Your task to perform on an android device: Open Maps and search for coffee Image 0: 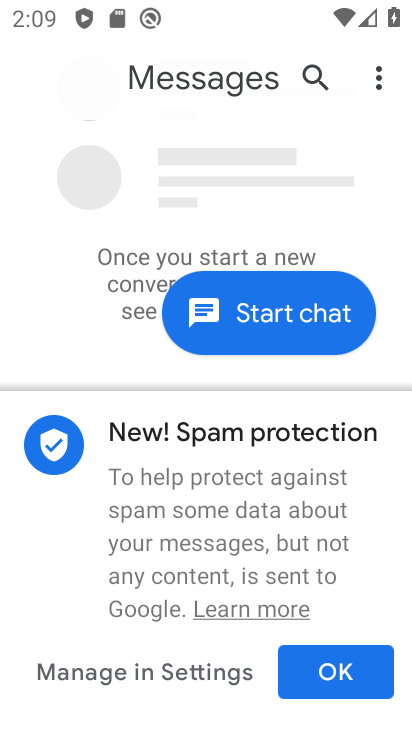
Step 0: press home button
Your task to perform on an android device: Open Maps and search for coffee Image 1: 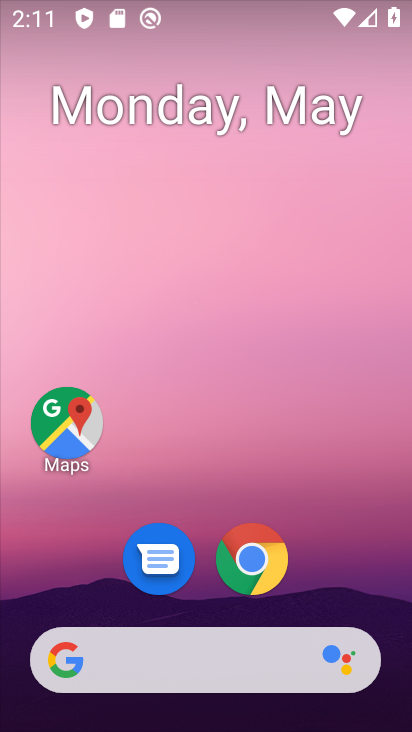
Step 1: drag from (292, 697) to (329, 255)
Your task to perform on an android device: Open Maps and search for coffee Image 2: 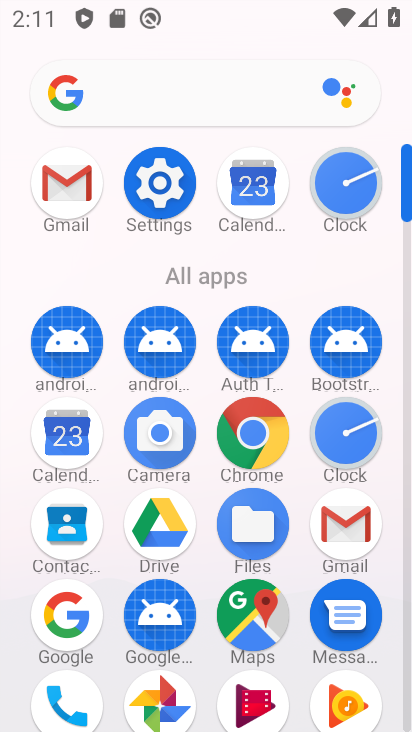
Step 2: click (260, 599)
Your task to perform on an android device: Open Maps and search for coffee Image 3: 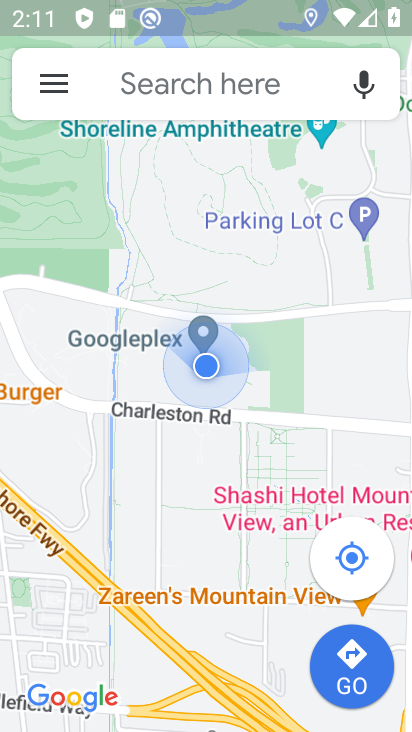
Step 3: click (145, 81)
Your task to perform on an android device: Open Maps and search for coffee Image 4: 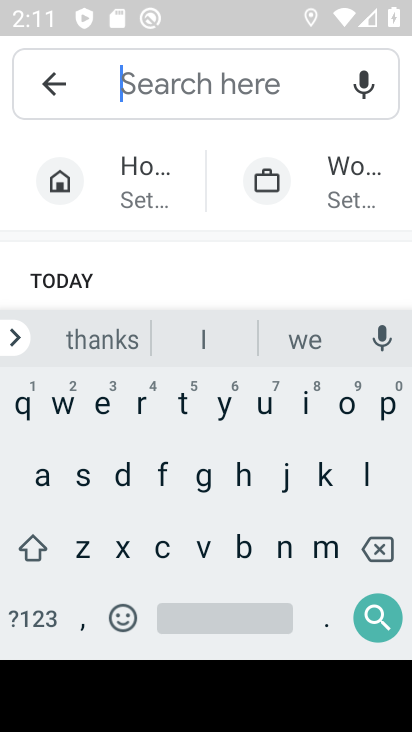
Step 4: click (162, 532)
Your task to perform on an android device: Open Maps and search for coffee Image 5: 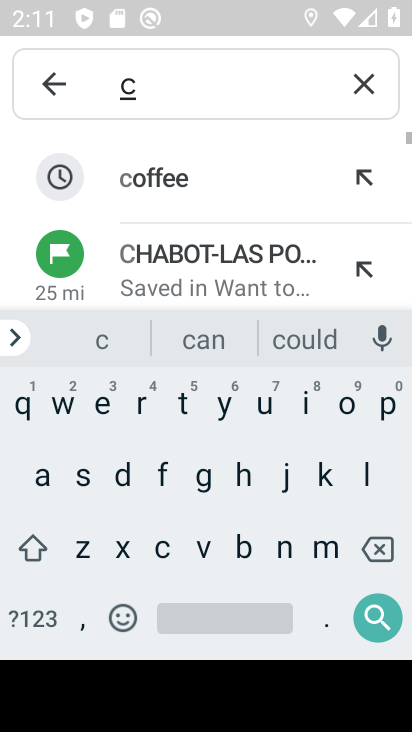
Step 5: click (171, 183)
Your task to perform on an android device: Open Maps and search for coffee Image 6: 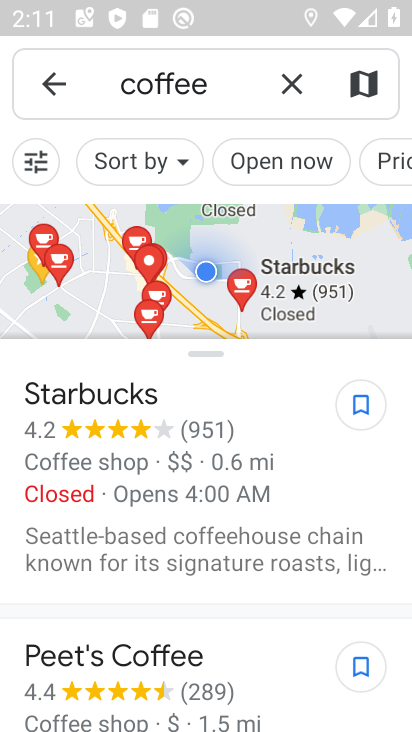
Step 6: click (97, 265)
Your task to perform on an android device: Open Maps and search for coffee Image 7: 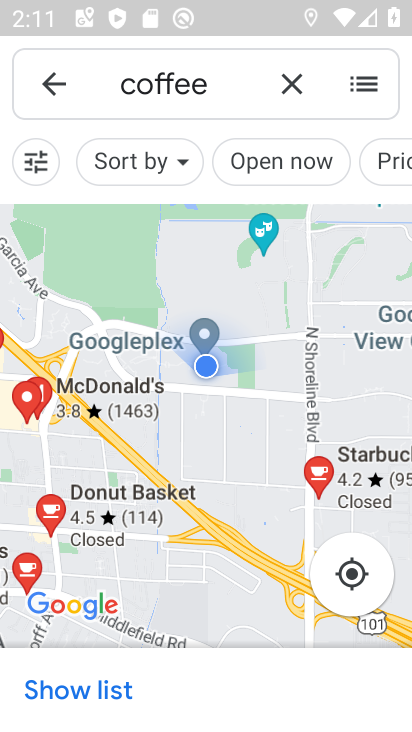
Step 7: task complete